Your task to perform on an android device: toggle show notifications on the lock screen Image 0: 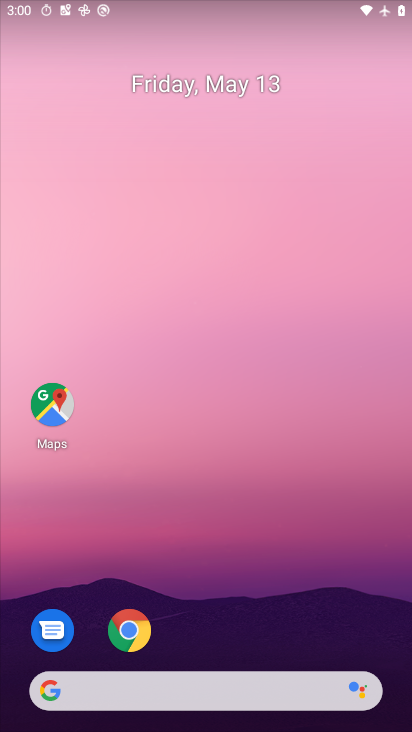
Step 0: drag from (286, 595) to (326, 122)
Your task to perform on an android device: toggle show notifications on the lock screen Image 1: 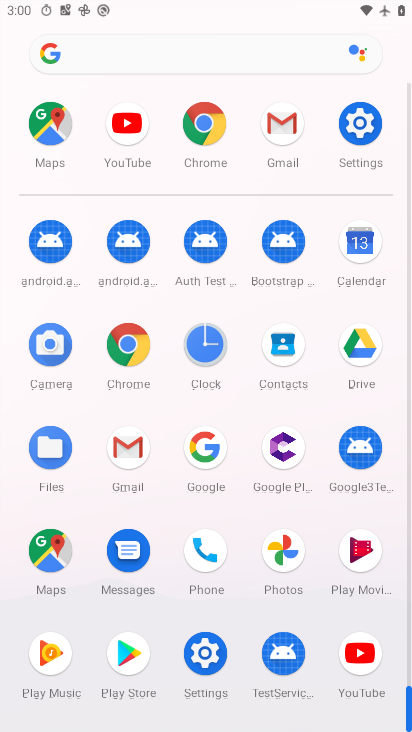
Step 1: click (370, 135)
Your task to perform on an android device: toggle show notifications on the lock screen Image 2: 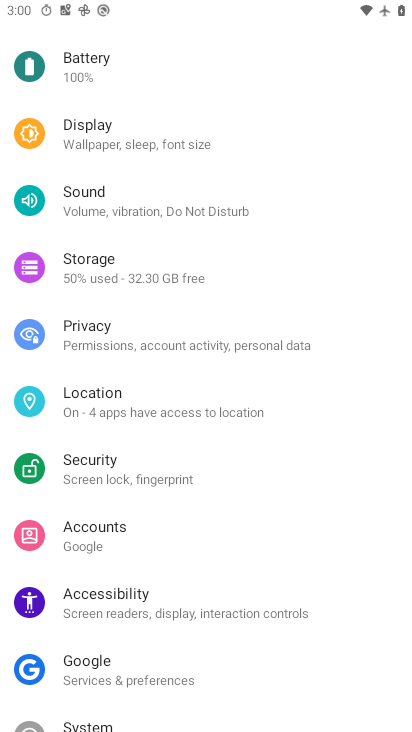
Step 2: drag from (149, 531) to (163, 294)
Your task to perform on an android device: toggle show notifications on the lock screen Image 3: 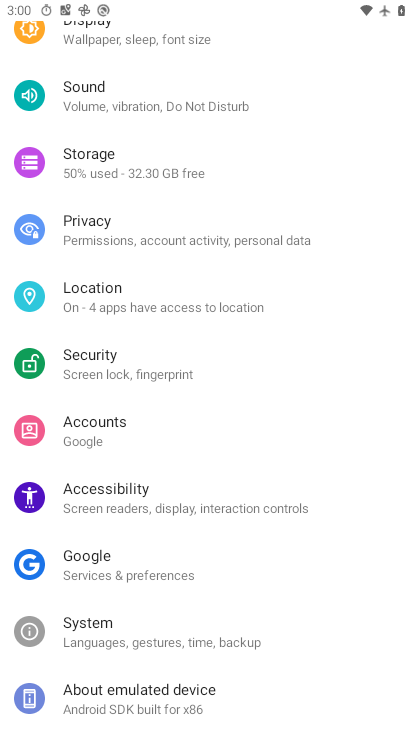
Step 3: drag from (193, 276) to (196, 658)
Your task to perform on an android device: toggle show notifications on the lock screen Image 4: 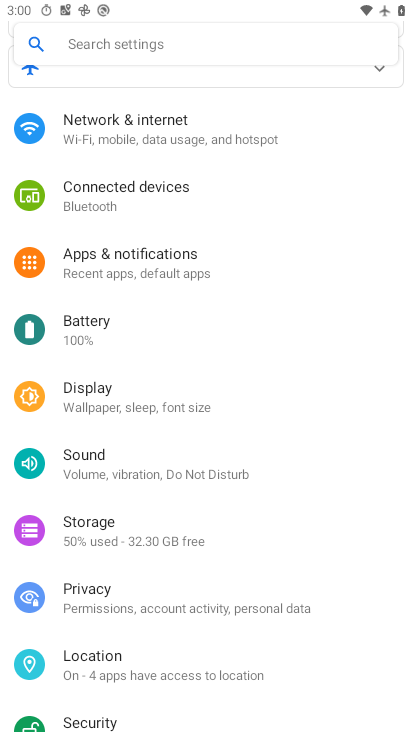
Step 4: drag from (222, 305) to (198, 625)
Your task to perform on an android device: toggle show notifications on the lock screen Image 5: 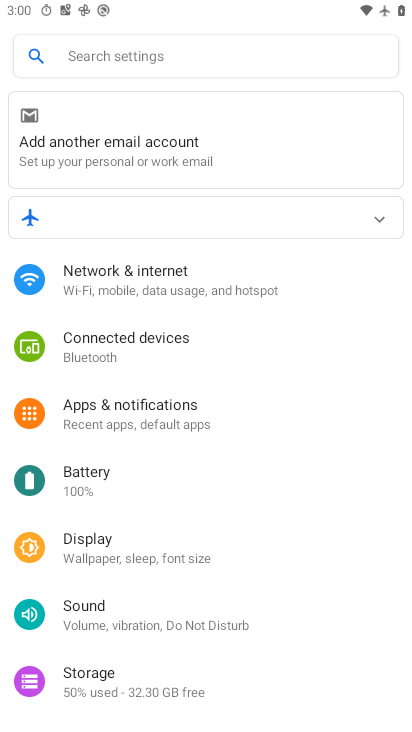
Step 5: drag from (187, 557) to (231, 253)
Your task to perform on an android device: toggle show notifications on the lock screen Image 6: 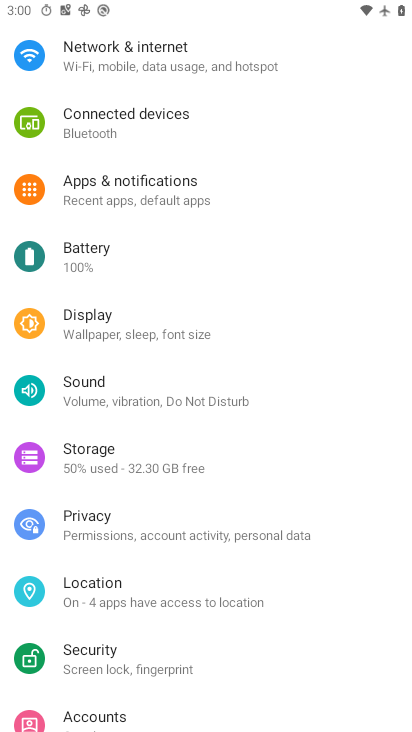
Step 6: drag from (177, 547) to (221, 339)
Your task to perform on an android device: toggle show notifications on the lock screen Image 7: 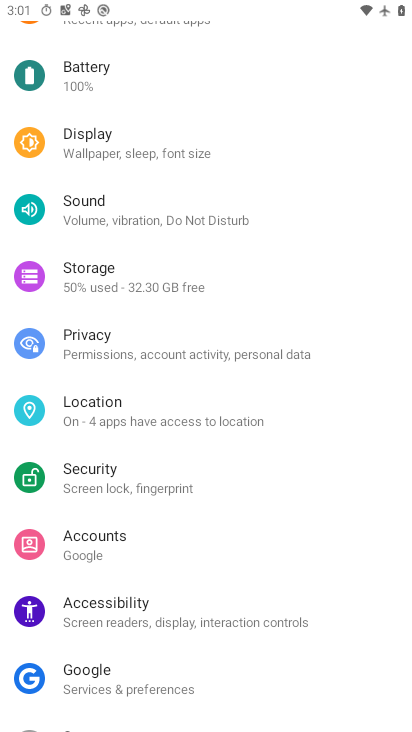
Step 7: drag from (214, 227) to (194, 682)
Your task to perform on an android device: toggle show notifications on the lock screen Image 8: 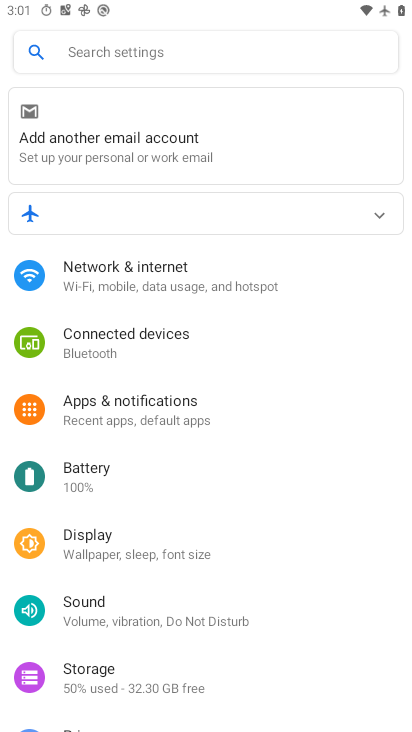
Step 8: click (180, 407)
Your task to perform on an android device: toggle show notifications on the lock screen Image 9: 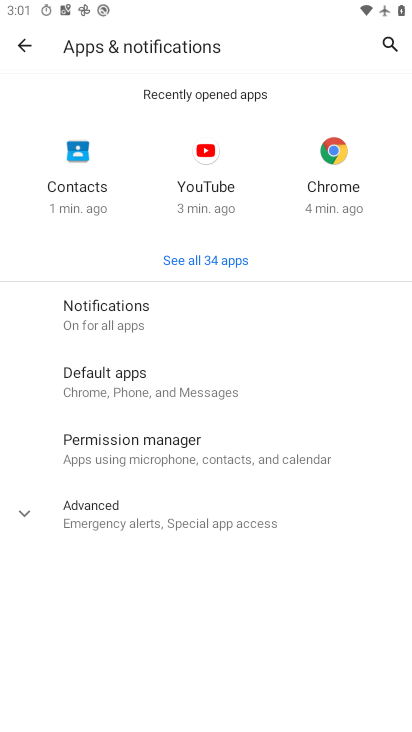
Step 9: click (239, 347)
Your task to perform on an android device: toggle show notifications on the lock screen Image 10: 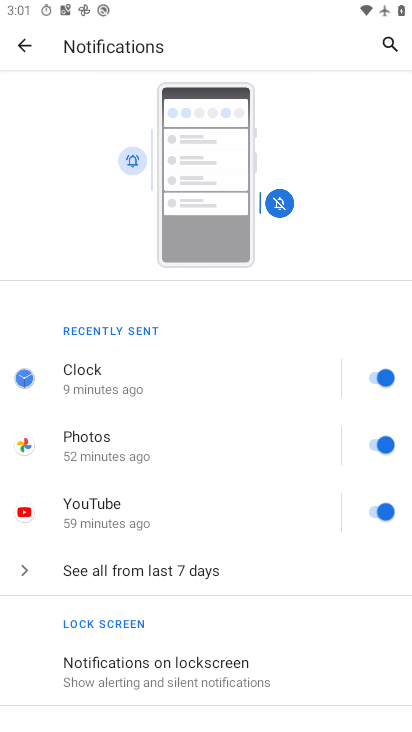
Step 10: drag from (136, 571) to (208, 313)
Your task to perform on an android device: toggle show notifications on the lock screen Image 11: 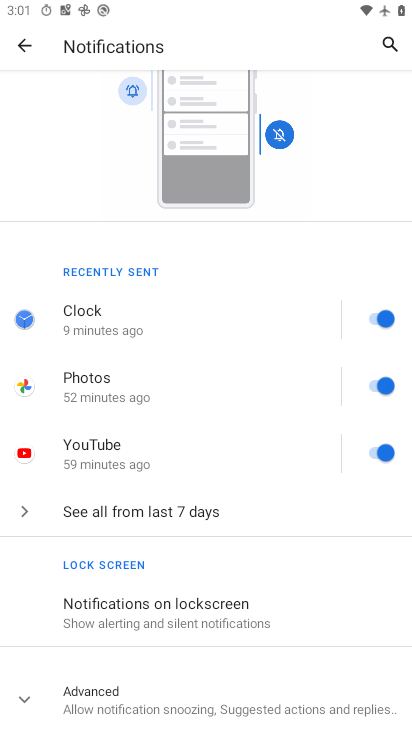
Step 11: click (210, 622)
Your task to perform on an android device: toggle show notifications on the lock screen Image 12: 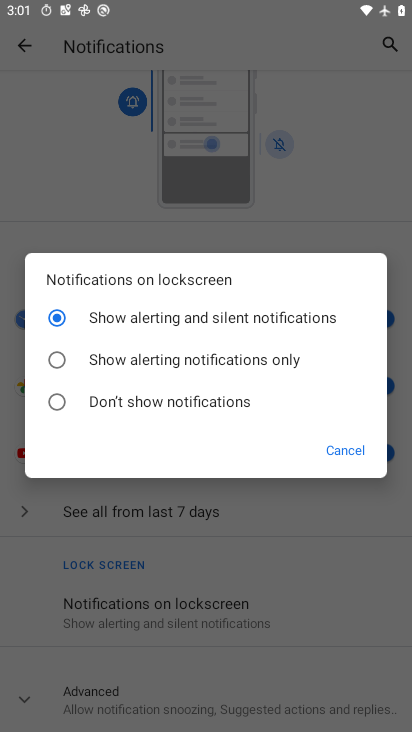
Step 12: click (164, 405)
Your task to perform on an android device: toggle show notifications on the lock screen Image 13: 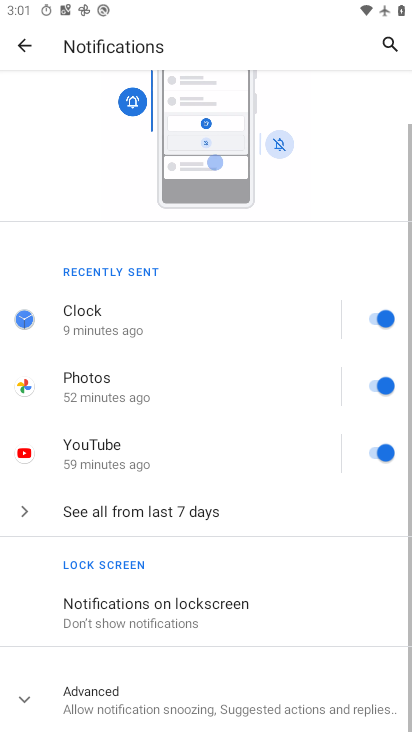
Step 13: task complete